Your task to perform on an android device: turn on the 12-hour format for clock Image 0: 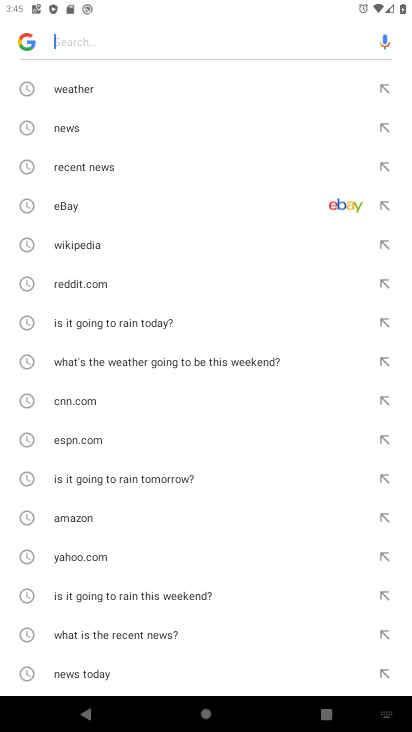
Step 0: press back button
Your task to perform on an android device: turn on the 12-hour format for clock Image 1: 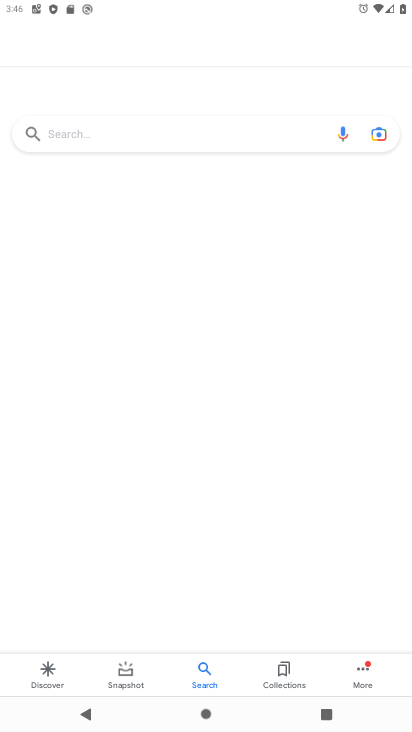
Step 1: press back button
Your task to perform on an android device: turn on the 12-hour format for clock Image 2: 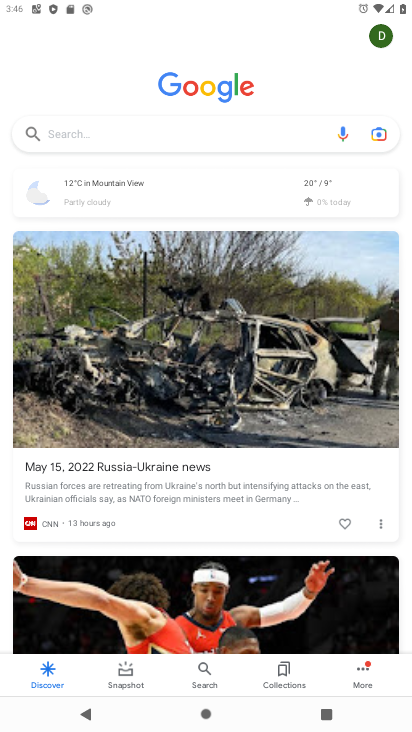
Step 2: press back button
Your task to perform on an android device: turn on the 12-hour format for clock Image 3: 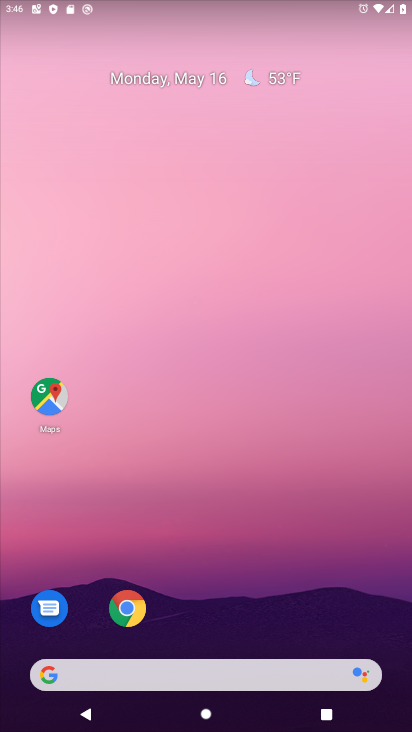
Step 3: drag from (250, 597) to (247, 140)
Your task to perform on an android device: turn on the 12-hour format for clock Image 4: 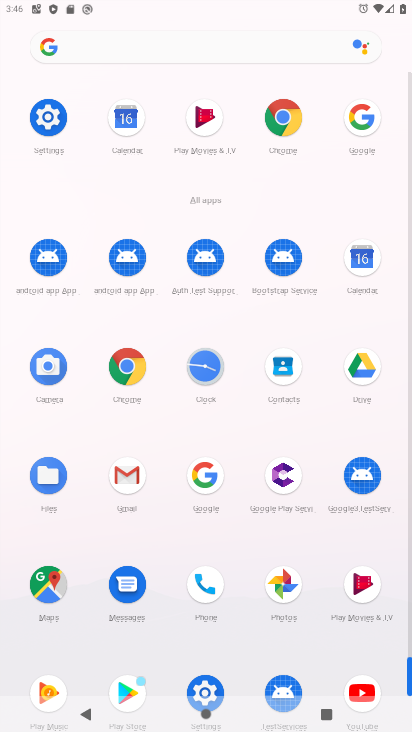
Step 4: click (206, 369)
Your task to perform on an android device: turn on the 12-hour format for clock Image 5: 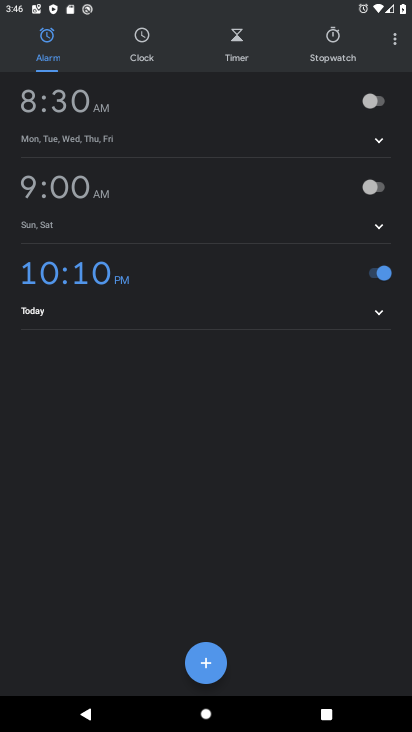
Step 5: click (394, 41)
Your task to perform on an android device: turn on the 12-hour format for clock Image 6: 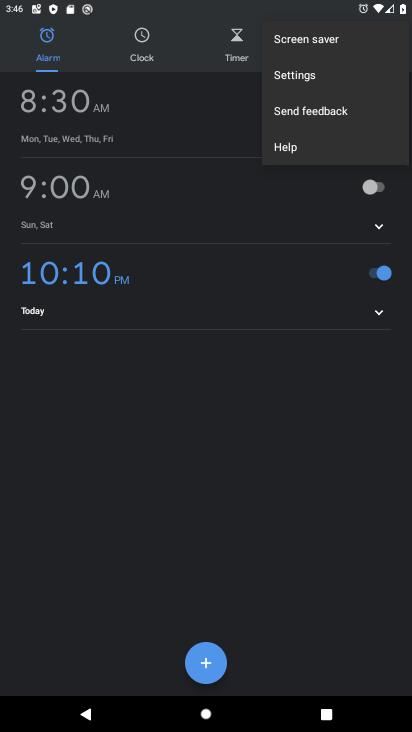
Step 6: click (306, 73)
Your task to perform on an android device: turn on the 12-hour format for clock Image 7: 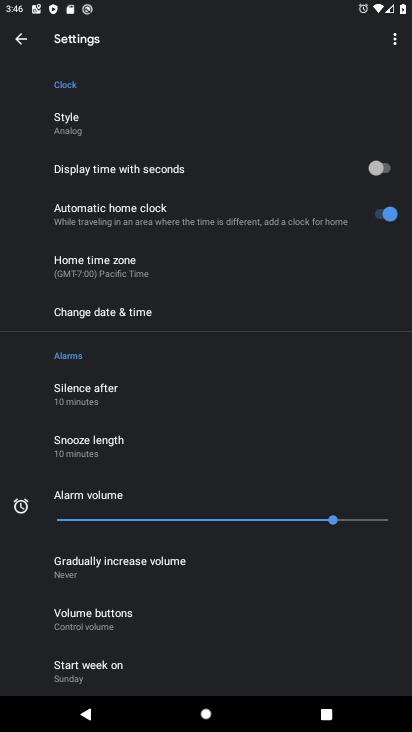
Step 7: click (140, 309)
Your task to perform on an android device: turn on the 12-hour format for clock Image 8: 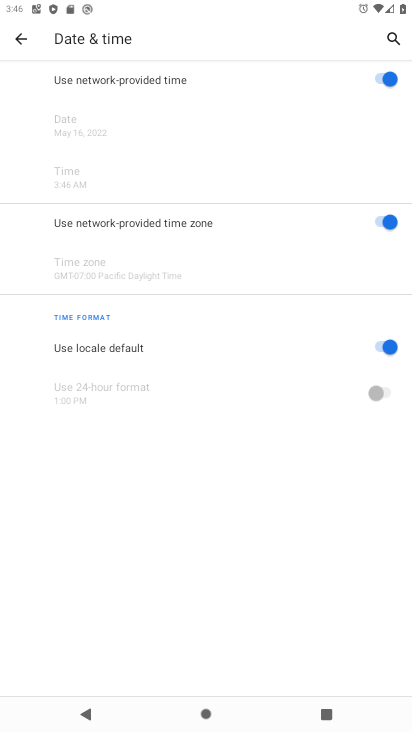
Step 8: task complete